Your task to perform on an android device: Go to Android settings Image 0: 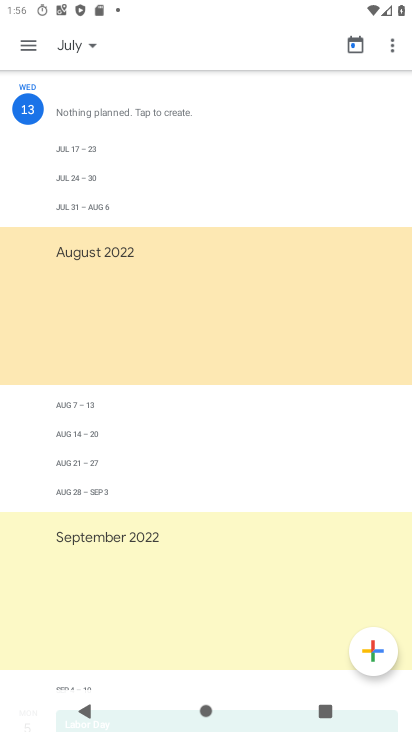
Step 0: press home button
Your task to perform on an android device: Go to Android settings Image 1: 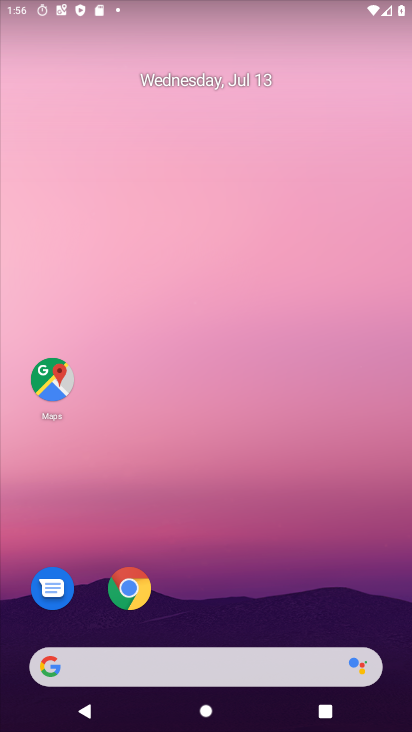
Step 1: drag from (144, 548) to (240, 185)
Your task to perform on an android device: Go to Android settings Image 2: 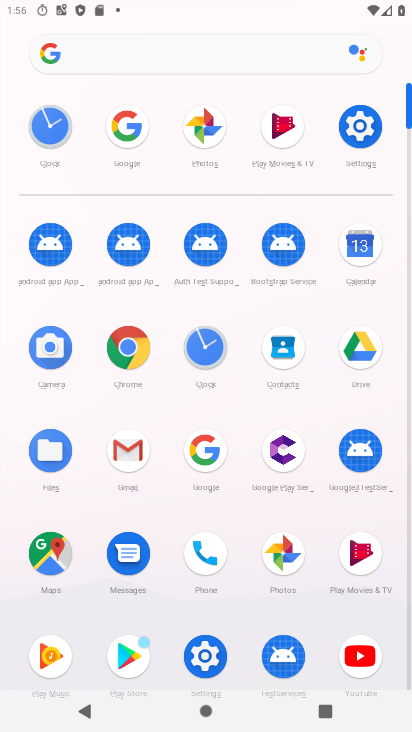
Step 2: click (360, 127)
Your task to perform on an android device: Go to Android settings Image 3: 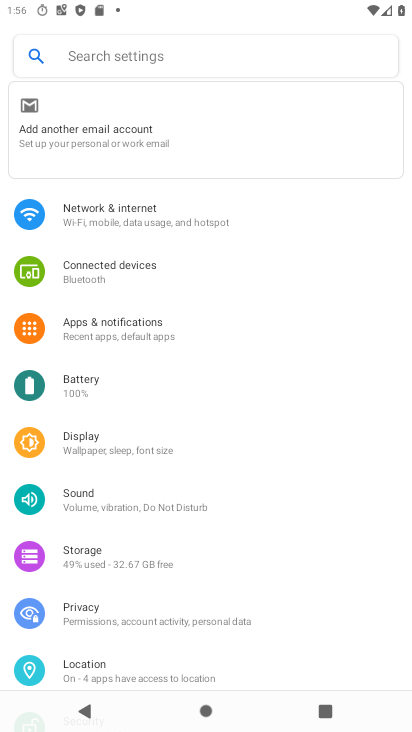
Step 3: click (172, 308)
Your task to perform on an android device: Go to Android settings Image 4: 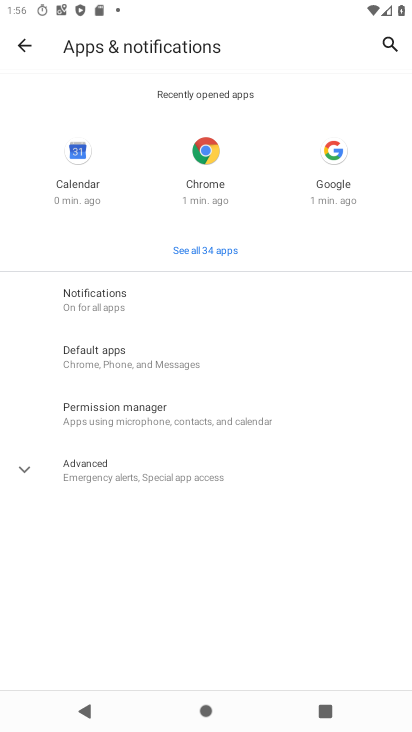
Step 4: task complete